Your task to perform on an android device: Open Google Maps Image 0: 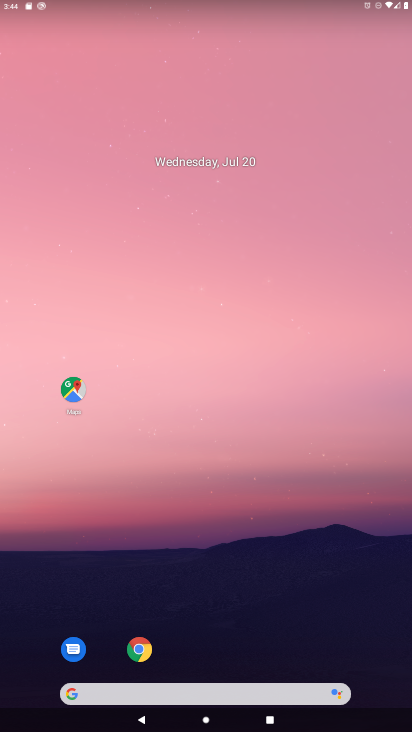
Step 0: click (73, 391)
Your task to perform on an android device: Open Google Maps Image 1: 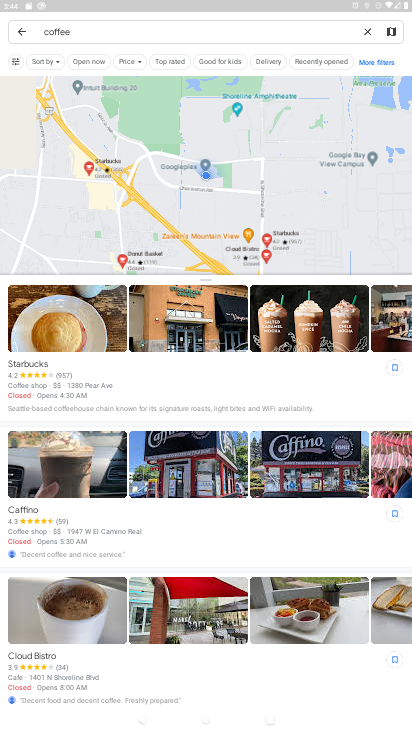
Step 1: task complete